Your task to perform on an android device: change keyboard looks Image 0: 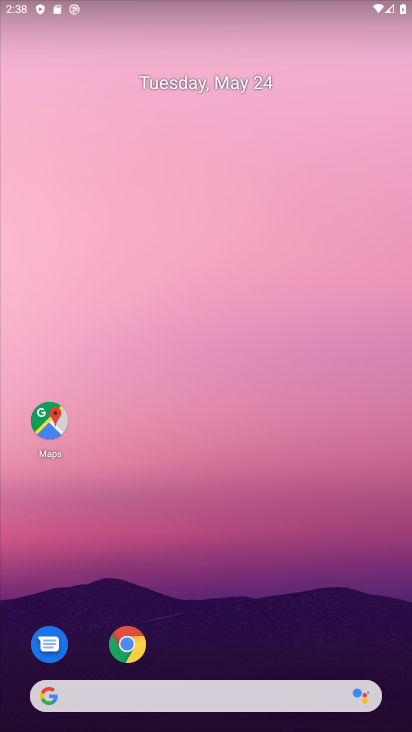
Step 0: drag from (344, 529) to (345, 85)
Your task to perform on an android device: change keyboard looks Image 1: 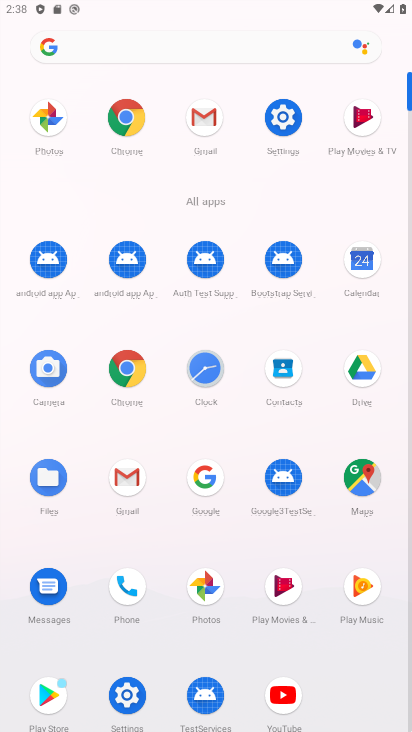
Step 1: click (280, 101)
Your task to perform on an android device: change keyboard looks Image 2: 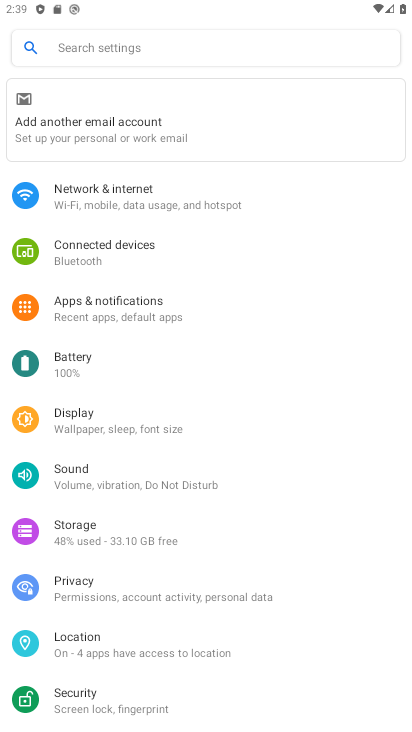
Step 2: drag from (239, 654) to (336, 140)
Your task to perform on an android device: change keyboard looks Image 3: 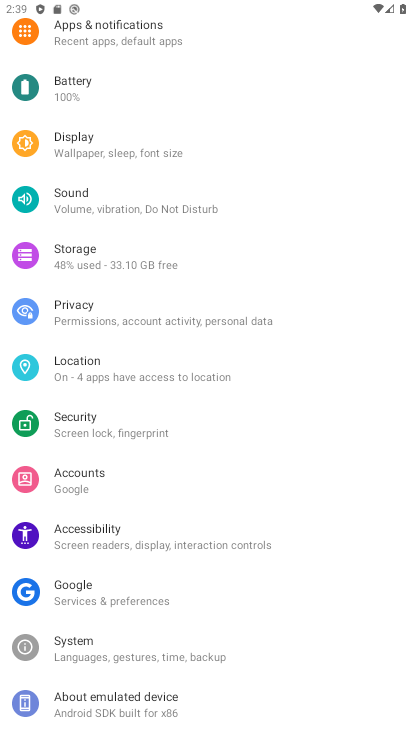
Step 3: click (88, 650)
Your task to perform on an android device: change keyboard looks Image 4: 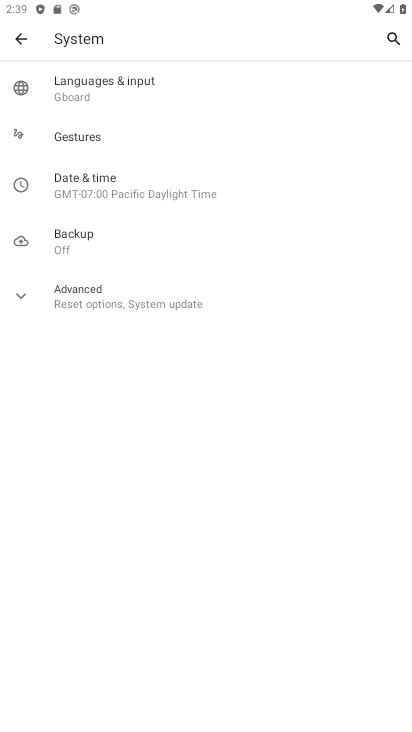
Step 4: click (121, 89)
Your task to perform on an android device: change keyboard looks Image 5: 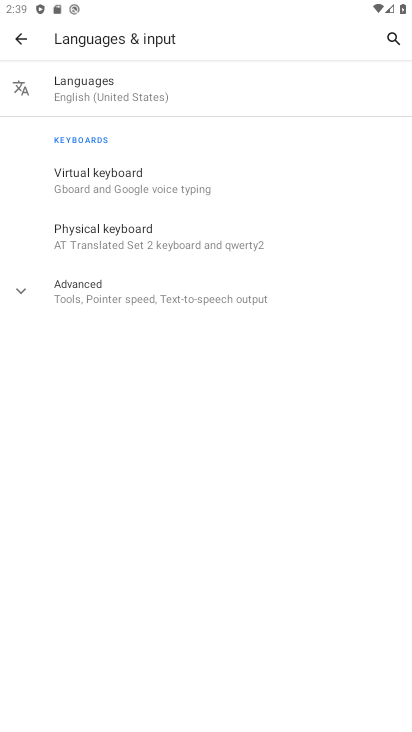
Step 5: click (183, 185)
Your task to perform on an android device: change keyboard looks Image 6: 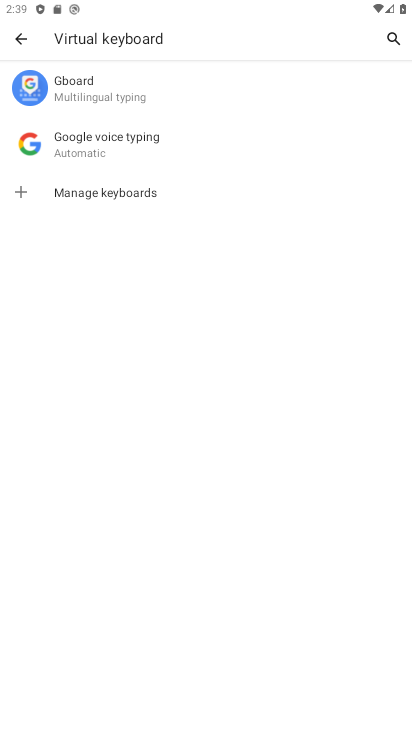
Step 6: click (169, 87)
Your task to perform on an android device: change keyboard looks Image 7: 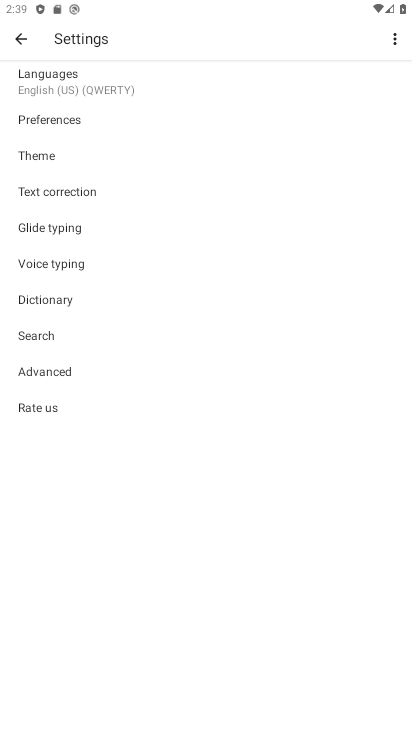
Step 7: click (50, 152)
Your task to perform on an android device: change keyboard looks Image 8: 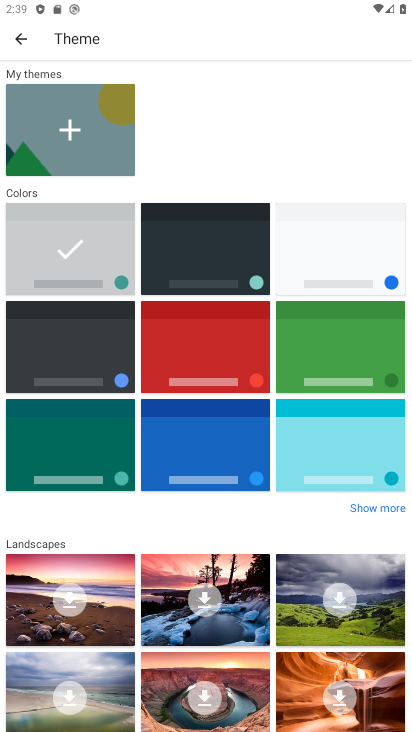
Step 8: click (328, 375)
Your task to perform on an android device: change keyboard looks Image 9: 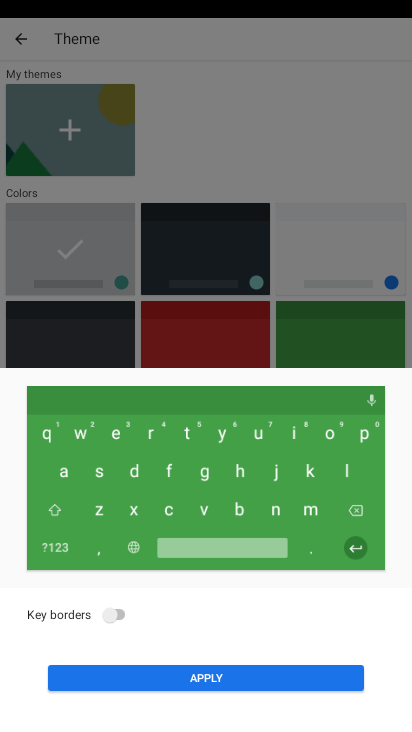
Step 9: click (190, 669)
Your task to perform on an android device: change keyboard looks Image 10: 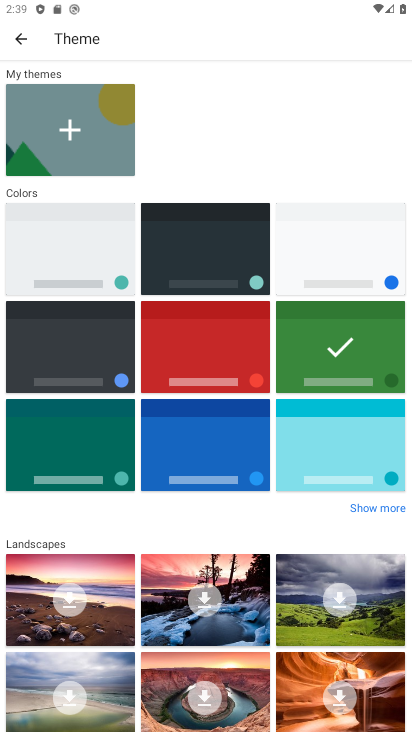
Step 10: task complete